Your task to perform on an android device: check storage Image 0: 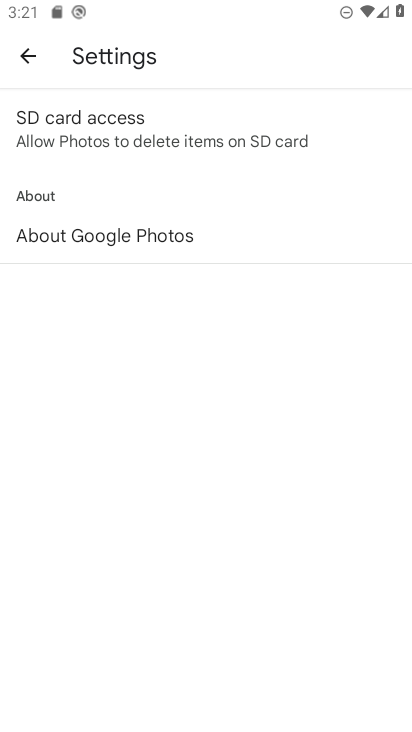
Step 0: press home button
Your task to perform on an android device: check storage Image 1: 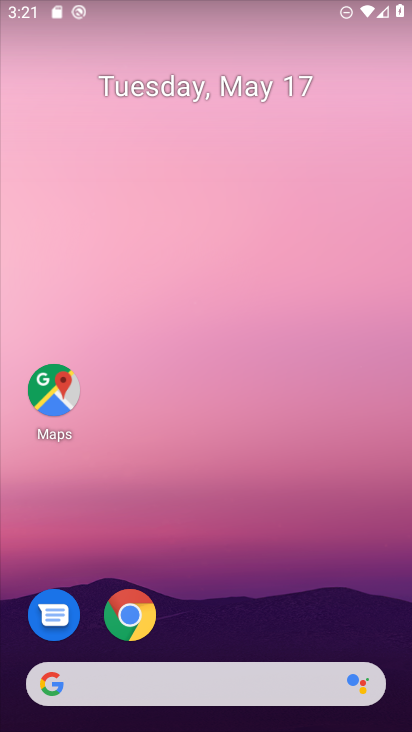
Step 1: drag from (216, 685) to (224, 196)
Your task to perform on an android device: check storage Image 2: 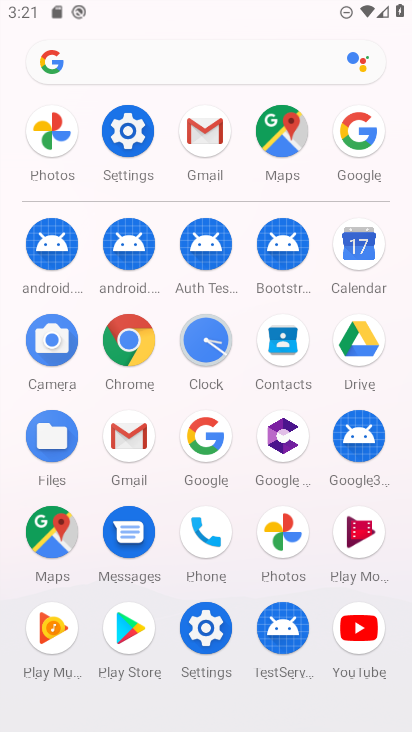
Step 2: click (129, 126)
Your task to perform on an android device: check storage Image 3: 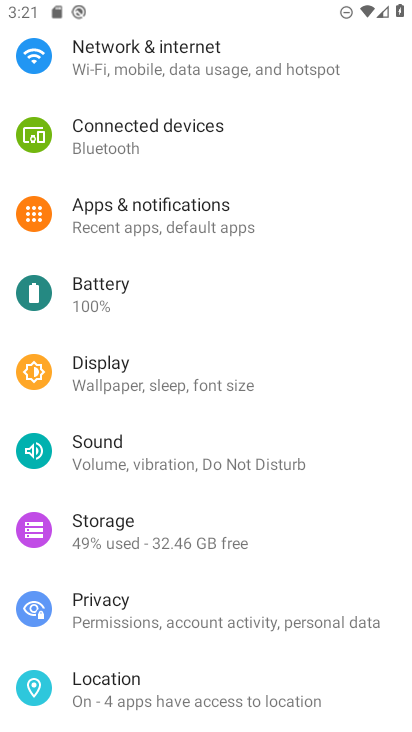
Step 3: click (108, 533)
Your task to perform on an android device: check storage Image 4: 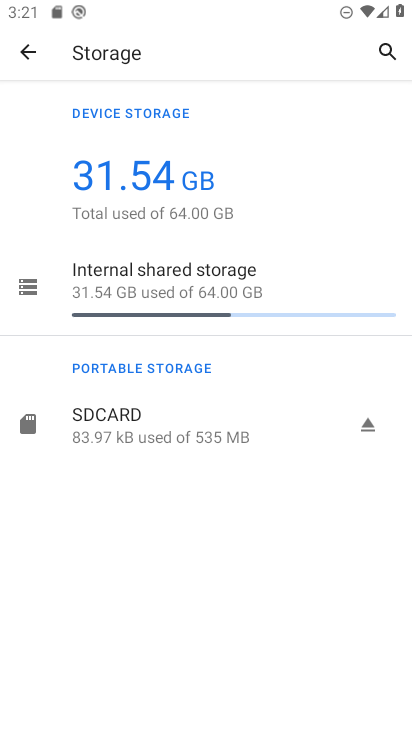
Step 4: task complete